Your task to perform on an android device: refresh tabs in the chrome app Image 0: 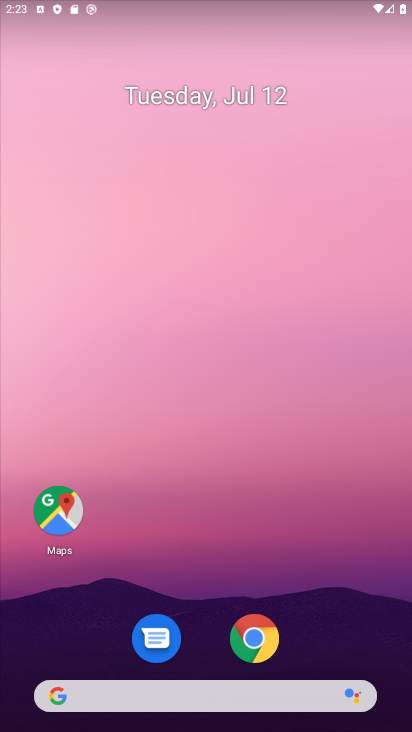
Step 0: click (250, 637)
Your task to perform on an android device: refresh tabs in the chrome app Image 1: 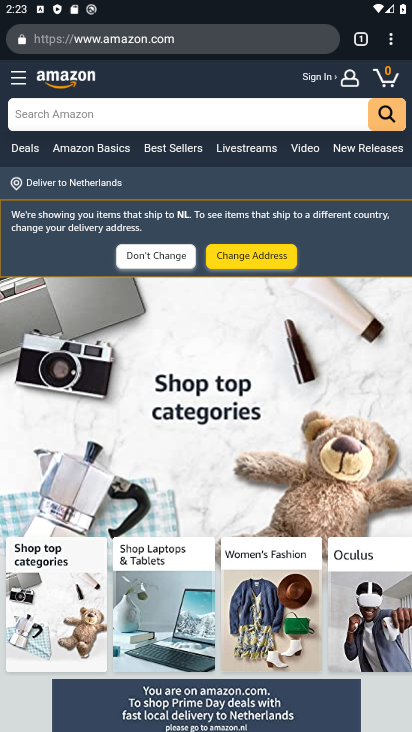
Step 1: click (392, 37)
Your task to perform on an android device: refresh tabs in the chrome app Image 2: 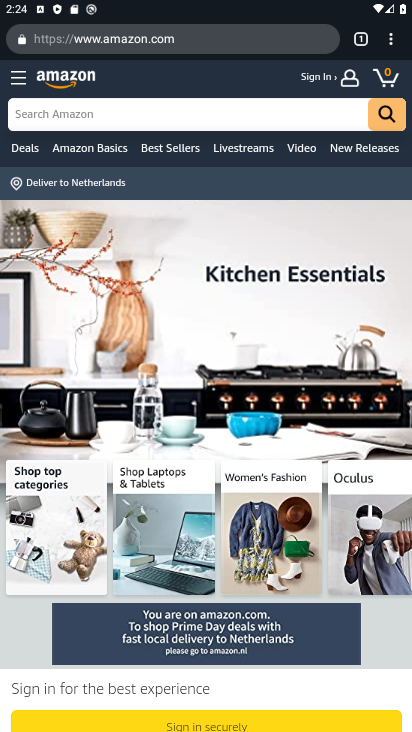
Step 2: task complete